Your task to perform on an android device: toggle sleep mode Image 0: 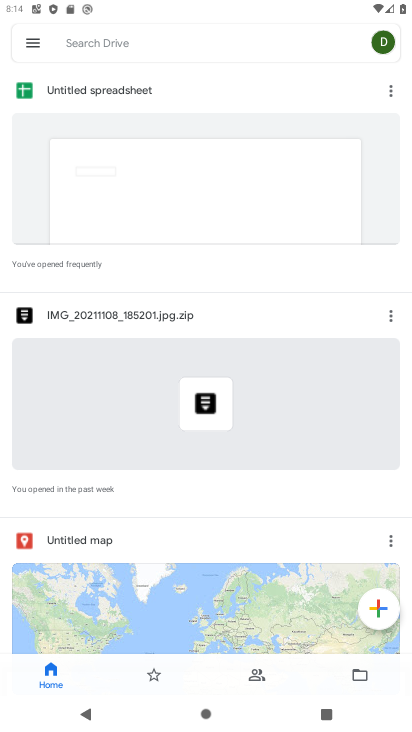
Step 0: press home button
Your task to perform on an android device: toggle sleep mode Image 1: 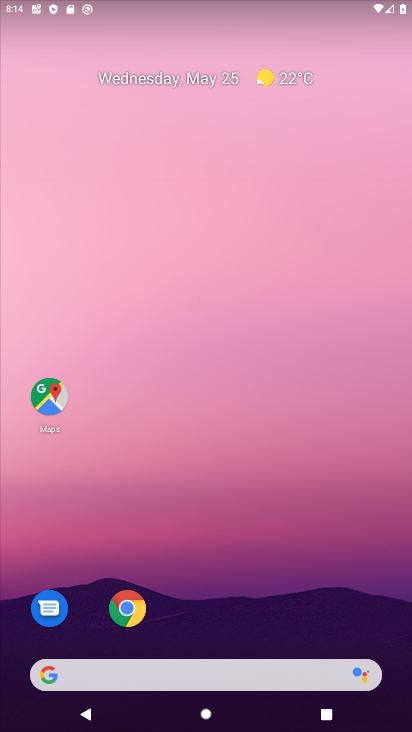
Step 1: drag from (241, 617) to (255, 165)
Your task to perform on an android device: toggle sleep mode Image 2: 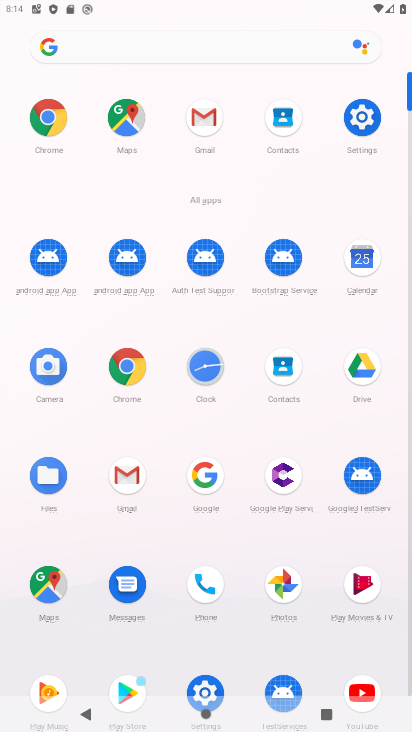
Step 2: click (362, 118)
Your task to perform on an android device: toggle sleep mode Image 3: 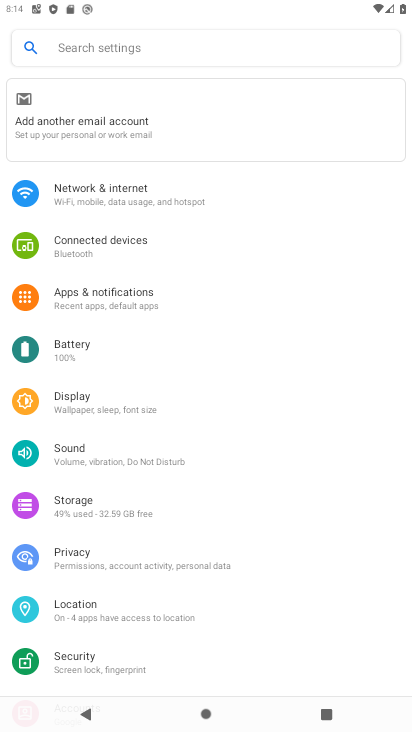
Step 3: click (124, 412)
Your task to perform on an android device: toggle sleep mode Image 4: 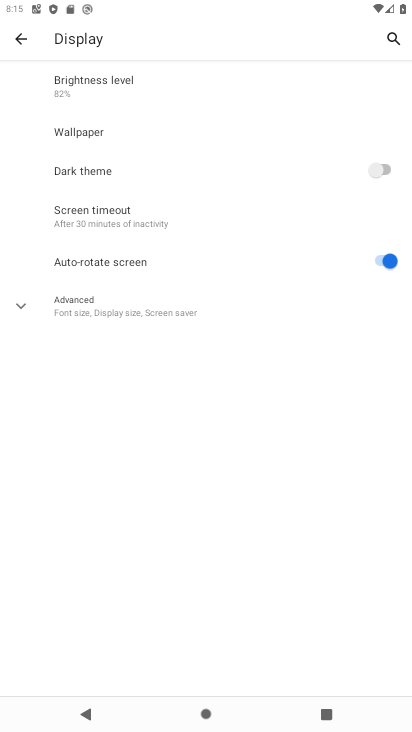
Step 4: click (91, 226)
Your task to perform on an android device: toggle sleep mode Image 5: 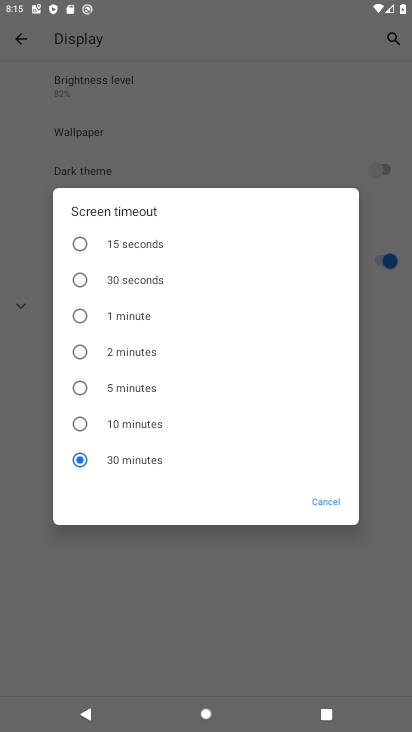
Step 5: click (323, 503)
Your task to perform on an android device: toggle sleep mode Image 6: 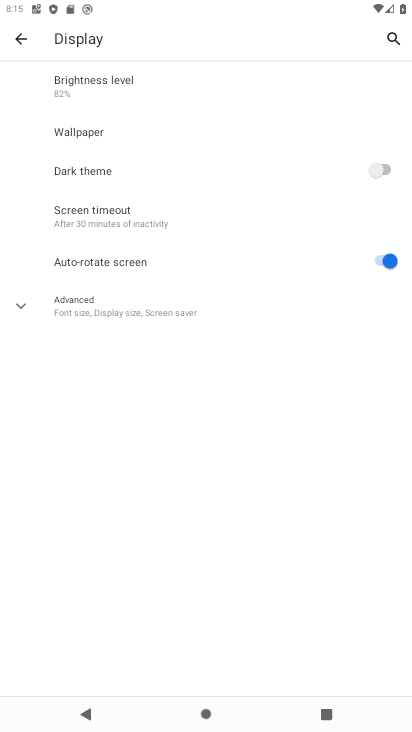
Step 6: click (109, 313)
Your task to perform on an android device: toggle sleep mode Image 7: 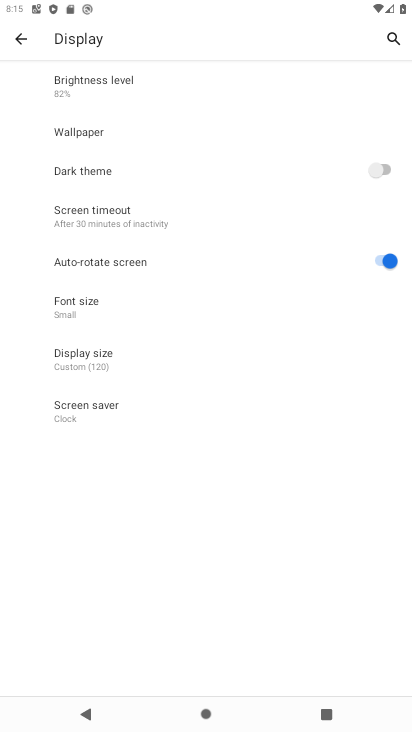
Step 7: task complete